Your task to perform on an android device: Go to Yahoo.com Image 0: 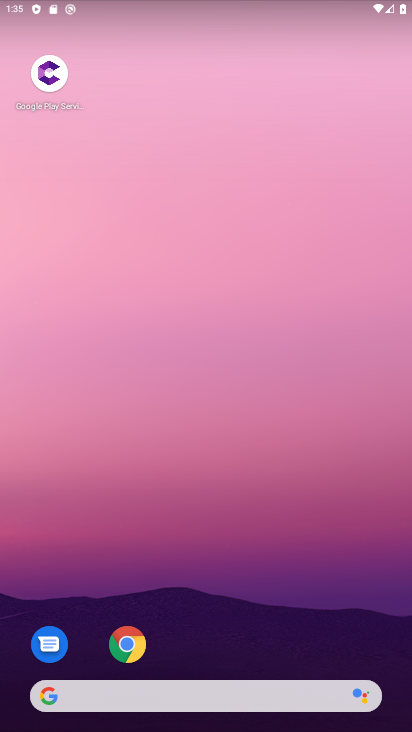
Step 0: drag from (244, 730) to (277, 161)
Your task to perform on an android device: Go to Yahoo.com Image 1: 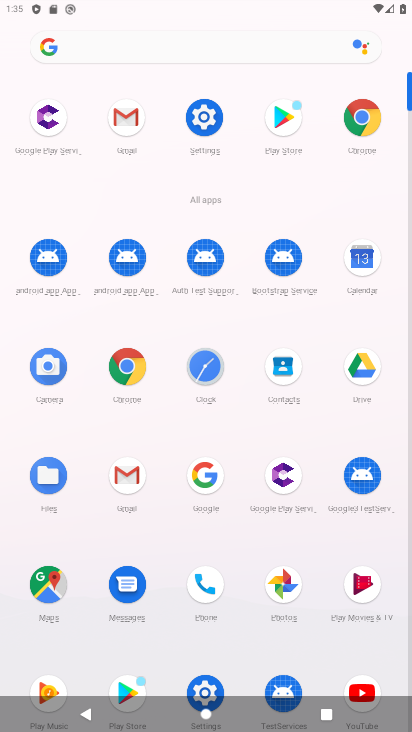
Step 1: click (137, 372)
Your task to perform on an android device: Go to Yahoo.com Image 2: 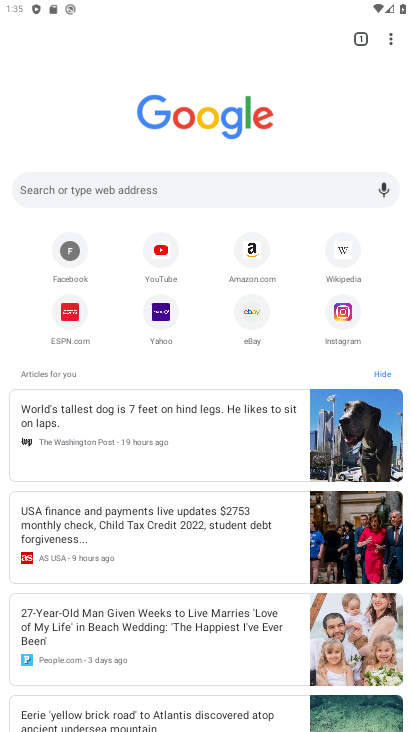
Step 2: click (163, 310)
Your task to perform on an android device: Go to Yahoo.com Image 3: 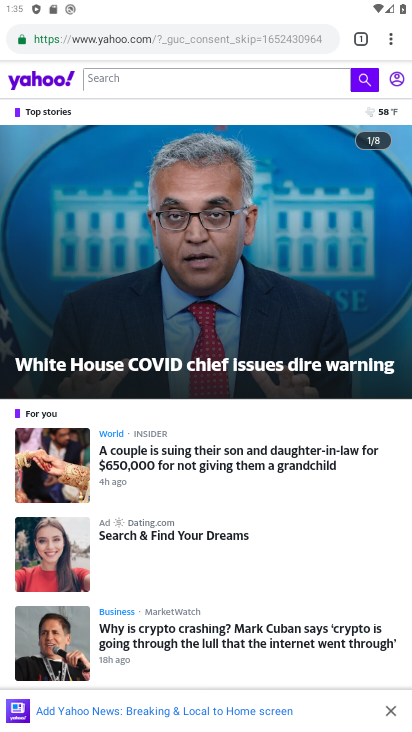
Step 3: task complete